Your task to perform on an android device: Search for seafood restaurants on Google Maps Image 0: 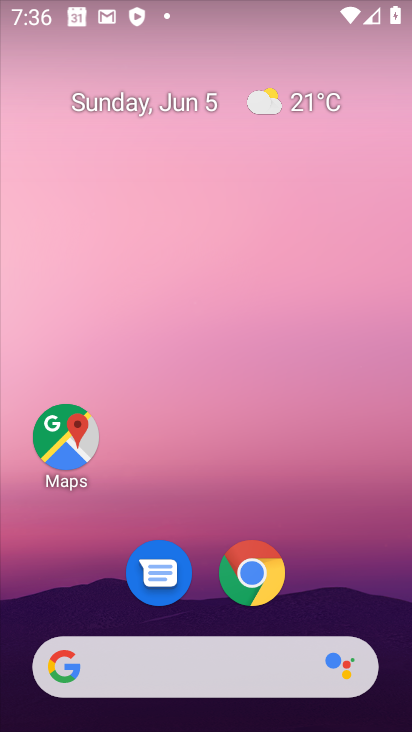
Step 0: click (44, 426)
Your task to perform on an android device: Search for seafood restaurants on Google Maps Image 1: 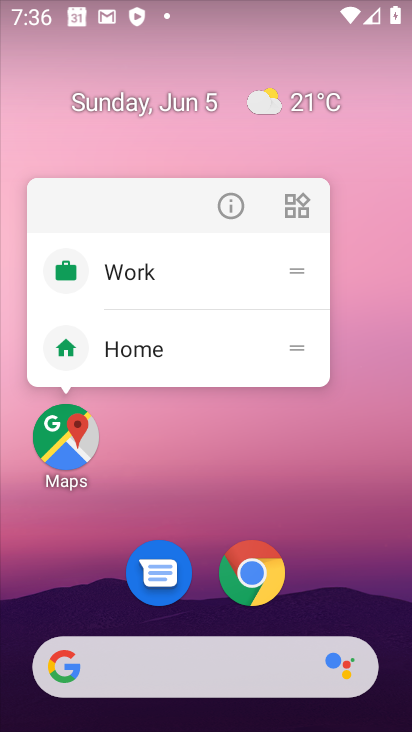
Step 1: click (47, 424)
Your task to perform on an android device: Search for seafood restaurants on Google Maps Image 2: 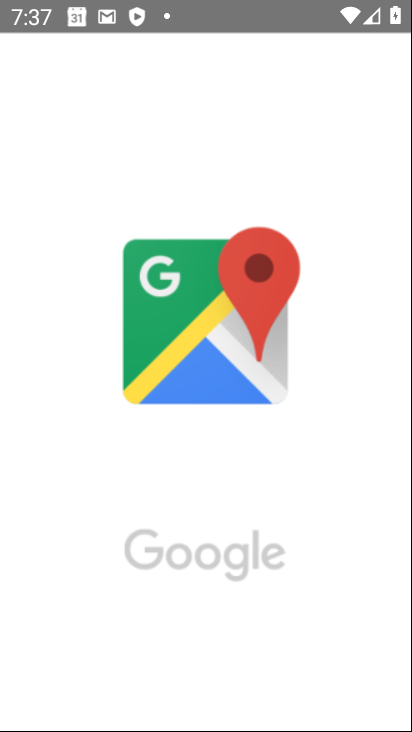
Step 2: task complete